Your task to perform on an android device: turn off location Image 0: 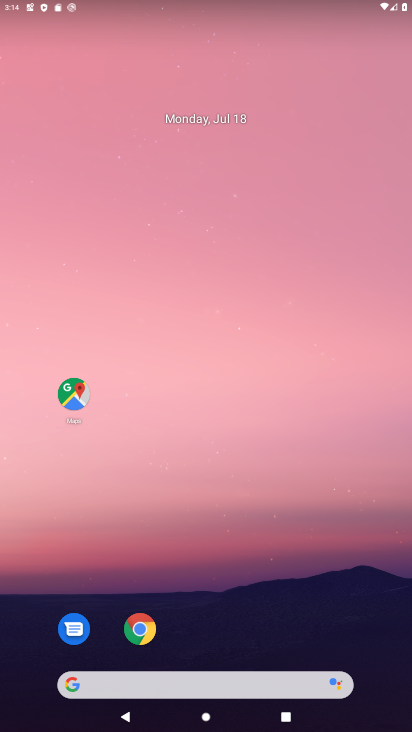
Step 0: drag from (237, 616) to (245, 166)
Your task to perform on an android device: turn off location Image 1: 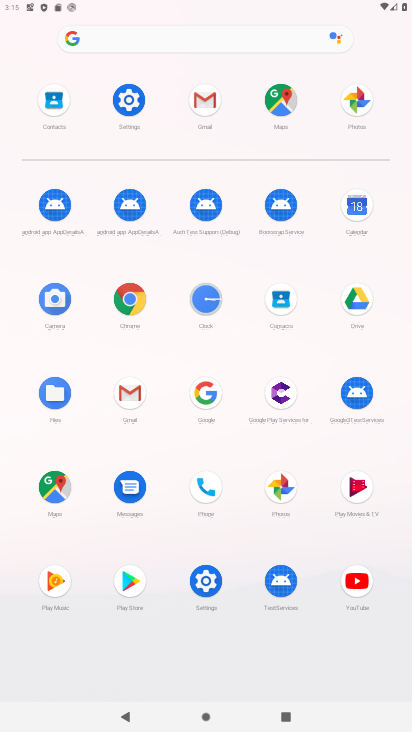
Step 1: click (124, 103)
Your task to perform on an android device: turn off location Image 2: 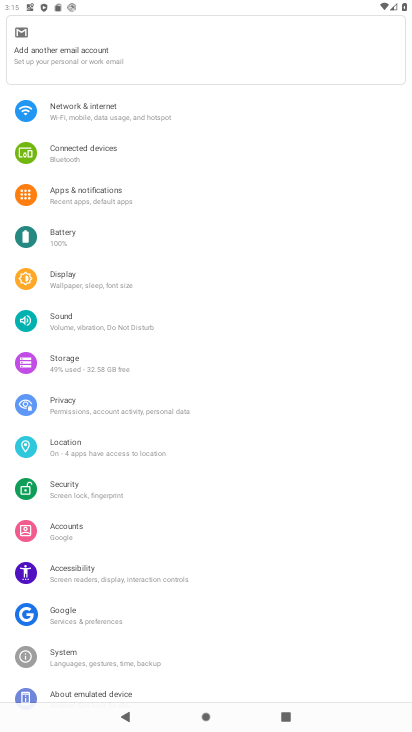
Step 2: click (108, 452)
Your task to perform on an android device: turn off location Image 3: 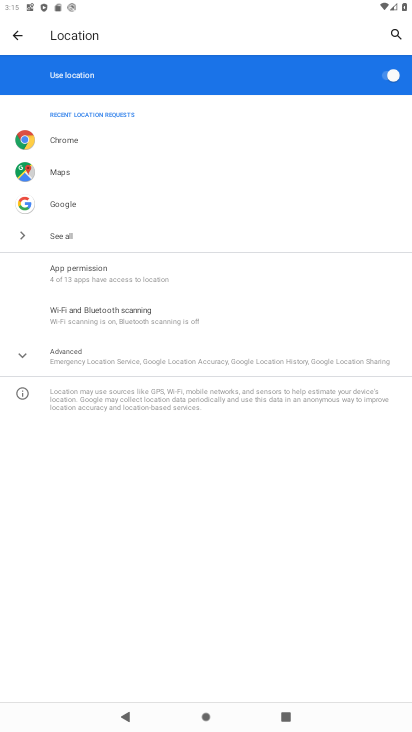
Step 3: click (381, 78)
Your task to perform on an android device: turn off location Image 4: 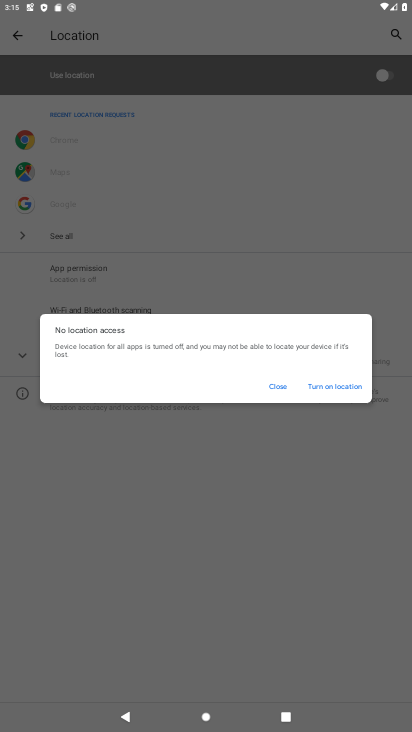
Step 4: task complete